Your task to perform on an android device: check google app version Image 0: 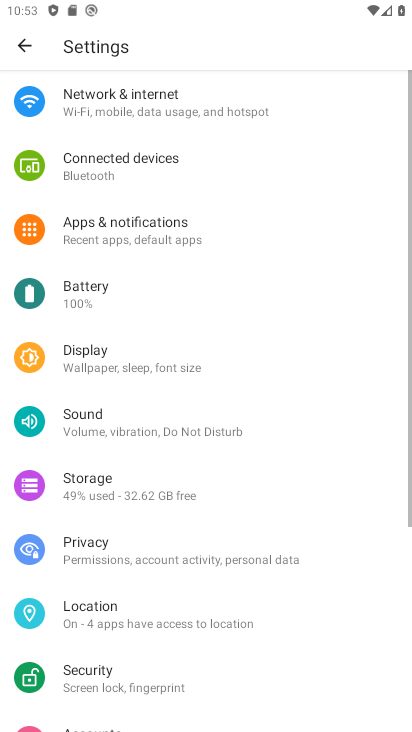
Step 0: press home button
Your task to perform on an android device: check google app version Image 1: 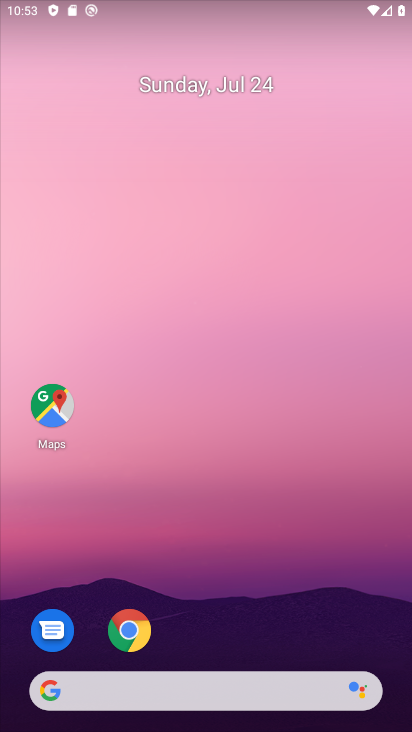
Step 1: drag from (246, 622) to (220, 93)
Your task to perform on an android device: check google app version Image 2: 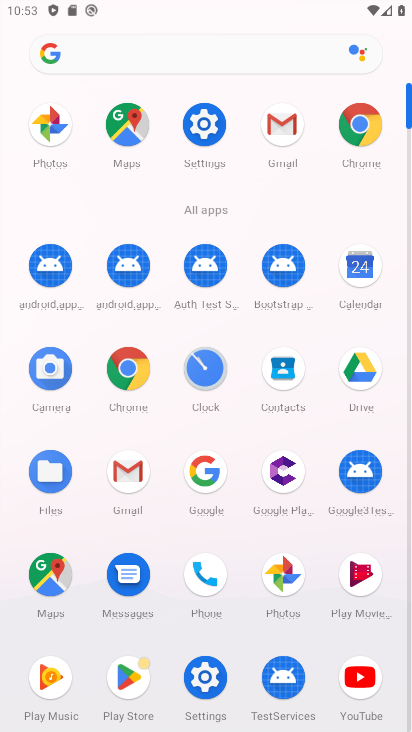
Step 2: click (203, 466)
Your task to perform on an android device: check google app version Image 3: 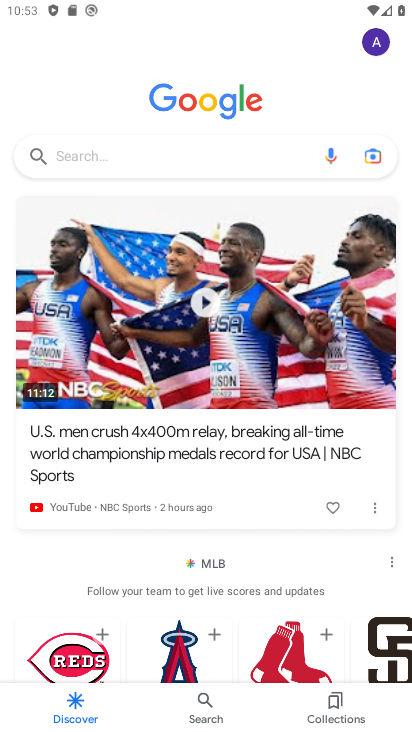
Step 3: click (384, 43)
Your task to perform on an android device: check google app version Image 4: 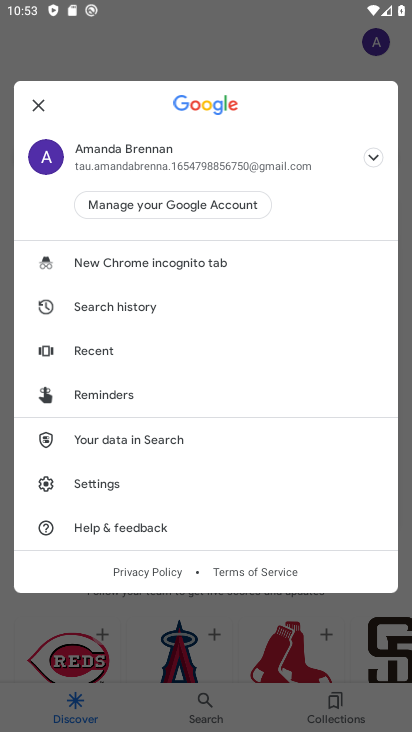
Step 4: click (106, 486)
Your task to perform on an android device: check google app version Image 5: 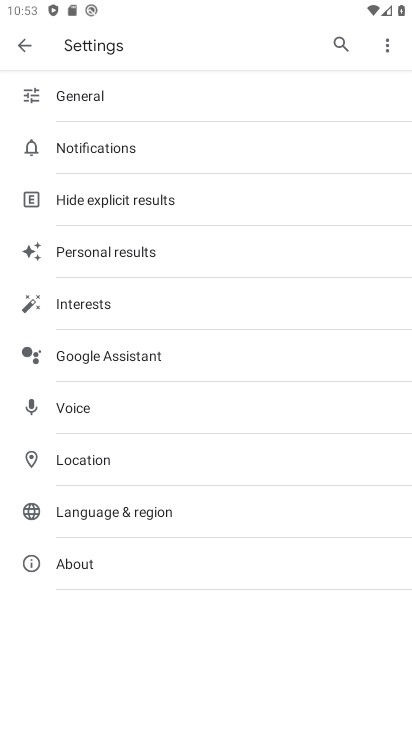
Step 5: click (118, 553)
Your task to perform on an android device: check google app version Image 6: 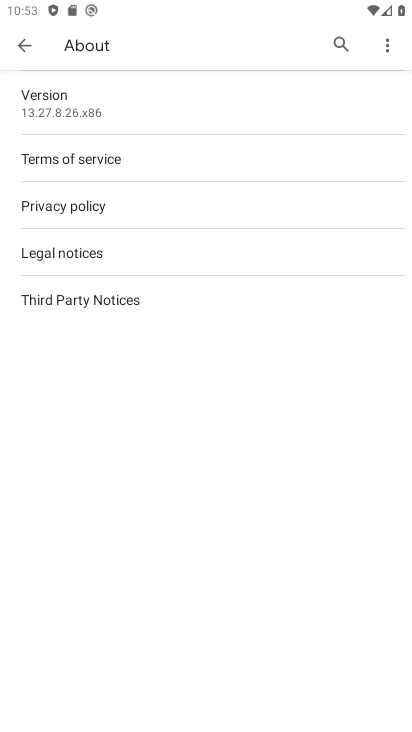
Step 6: click (87, 96)
Your task to perform on an android device: check google app version Image 7: 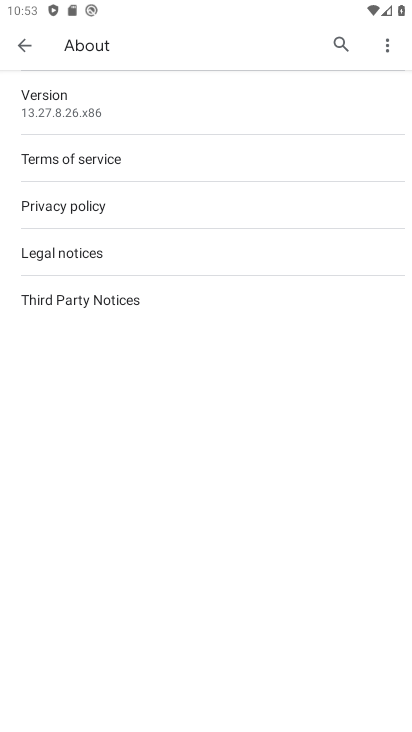
Step 7: task complete